Your task to perform on an android device: Open Youtube and go to the subscriptions tab Image 0: 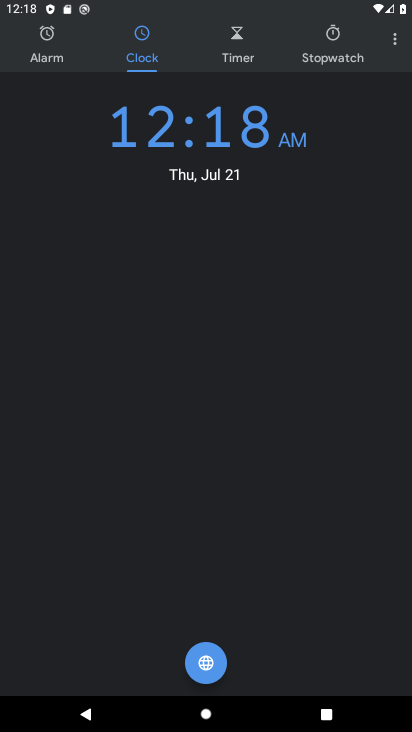
Step 0: press home button
Your task to perform on an android device: Open Youtube and go to the subscriptions tab Image 1: 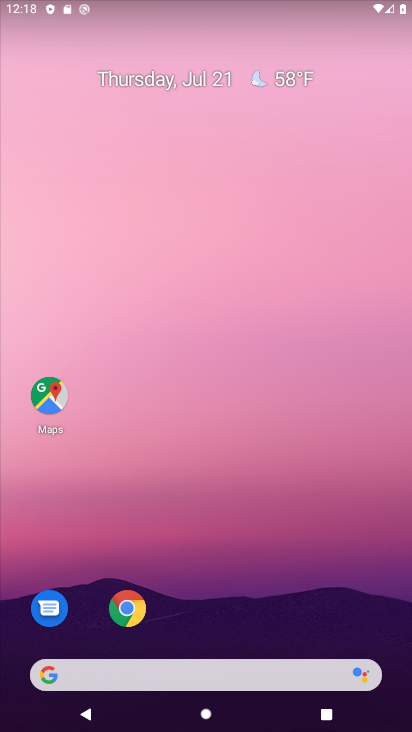
Step 1: drag from (206, 638) to (212, 106)
Your task to perform on an android device: Open Youtube and go to the subscriptions tab Image 2: 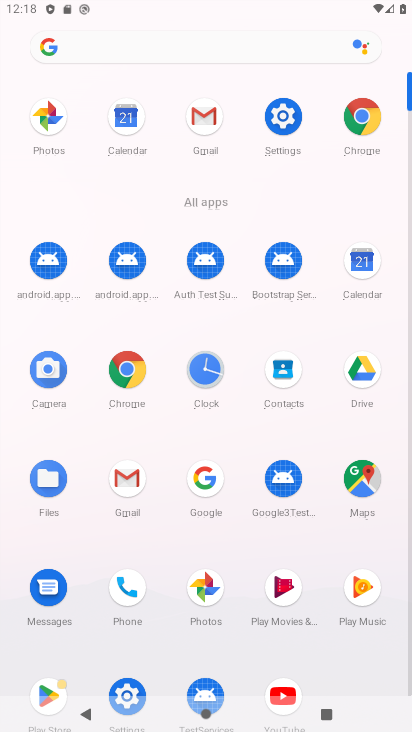
Step 2: drag from (271, 658) to (292, 299)
Your task to perform on an android device: Open Youtube and go to the subscriptions tab Image 3: 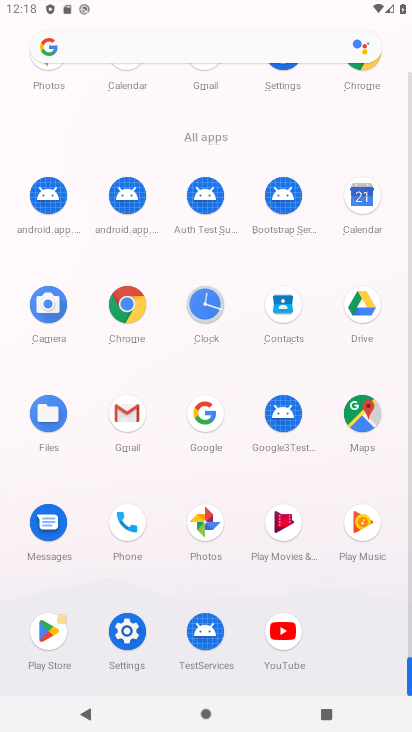
Step 3: click (280, 624)
Your task to perform on an android device: Open Youtube and go to the subscriptions tab Image 4: 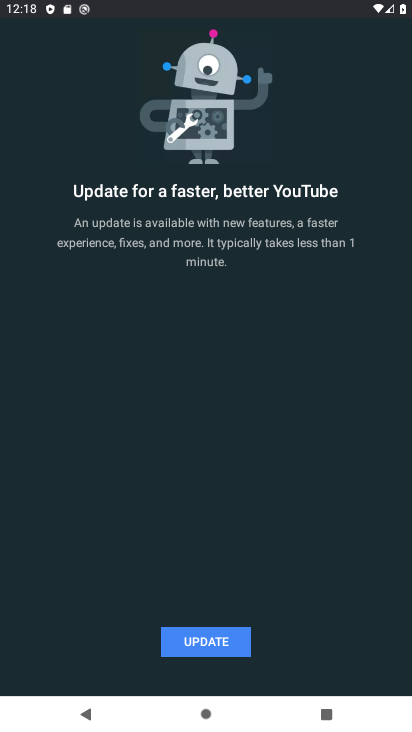
Step 4: click (208, 640)
Your task to perform on an android device: Open Youtube and go to the subscriptions tab Image 5: 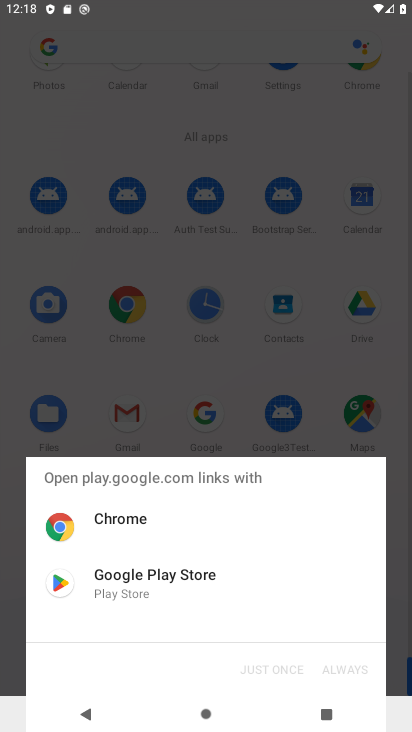
Step 5: click (127, 587)
Your task to perform on an android device: Open Youtube and go to the subscriptions tab Image 6: 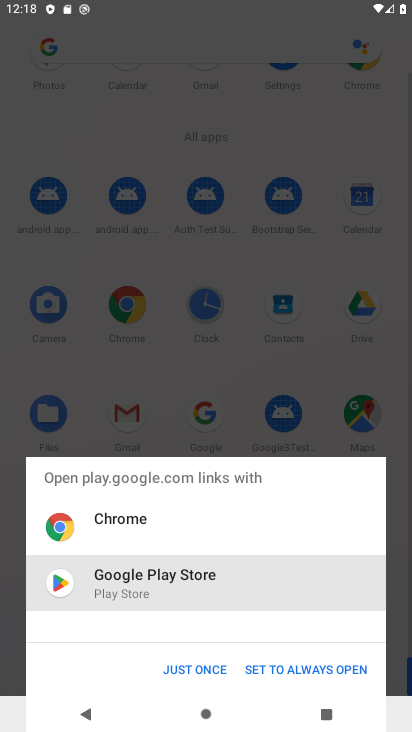
Step 6: click (202, 665)
Your task to perform on an android device: Open Youtube and go to the subscriptions tab Image 7: 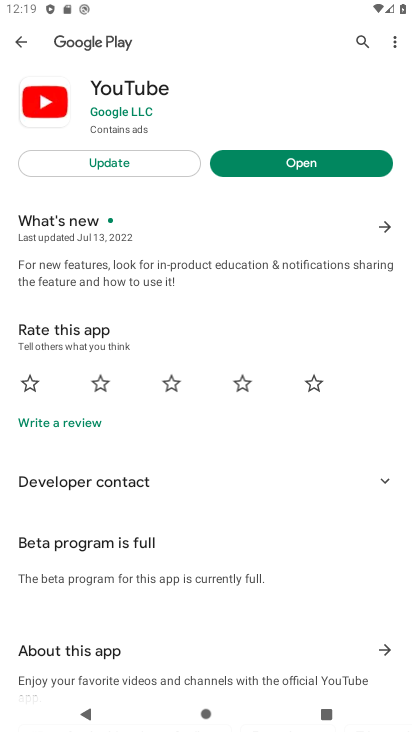
Step 7: click (118, 161)
Your task to perform on an android device: Open Youtube and go to the subscriptions tab Image 8: 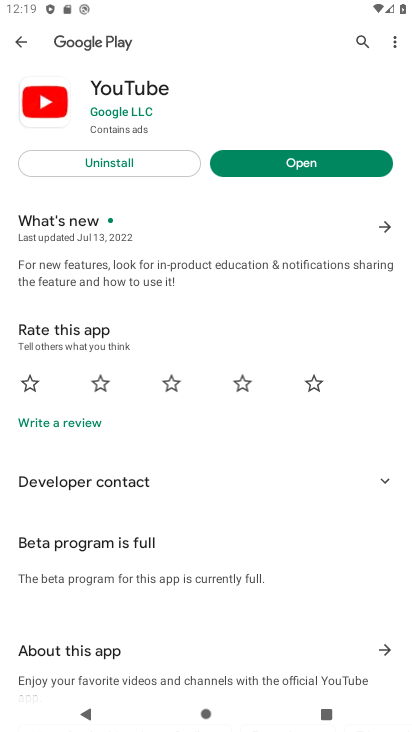
Step 8: click (322, 162)
Your task to perform on an android device: Open Youtube and go to the subscriptions tab Image 9: 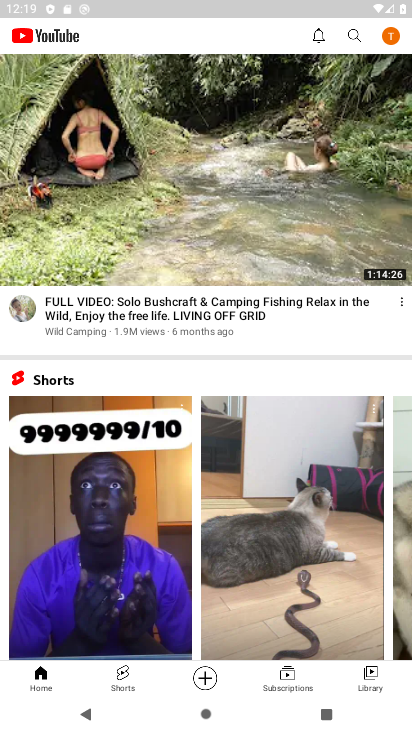
Step 9: click (282, 674)
Your task to perform on an android device: Open Youtube and go to the subscriptions tab Image 10: 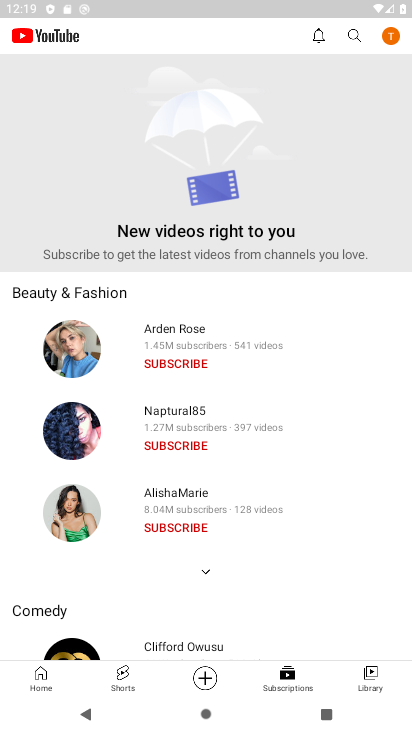
Step 10: task complete